Your task to perform on an android device: Open calendar and show me the third week of next month Image 0: 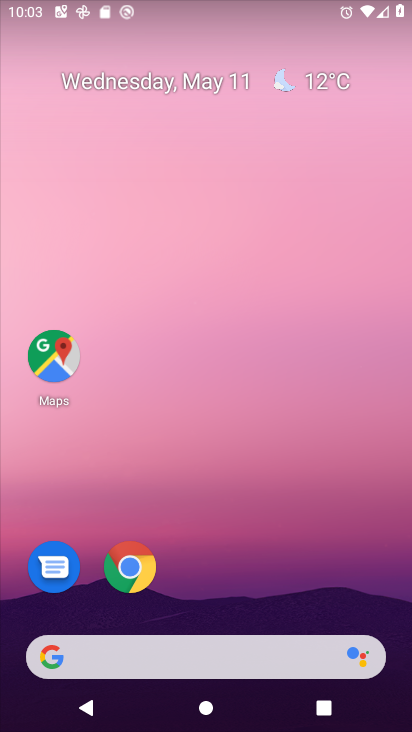
Step 0: drag from (262, 450) to (247, 84)
Your task to perform on an android device: Open calendar and show me the third week of next month Image 1: 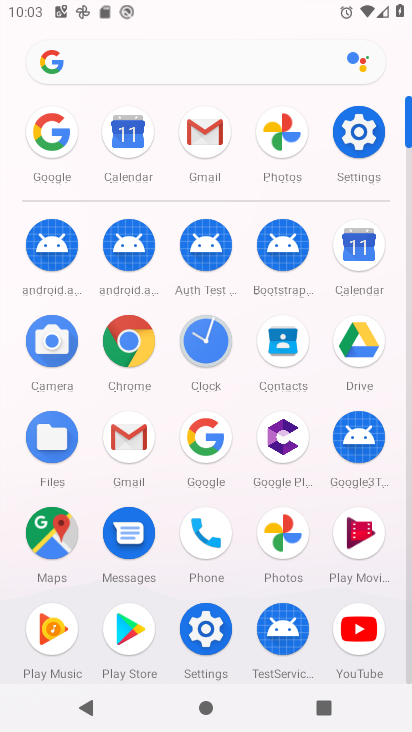
Step 1: click (356, 252)
Your task to perform on an android device: Open calendar and show me the third week of next month Image 2: 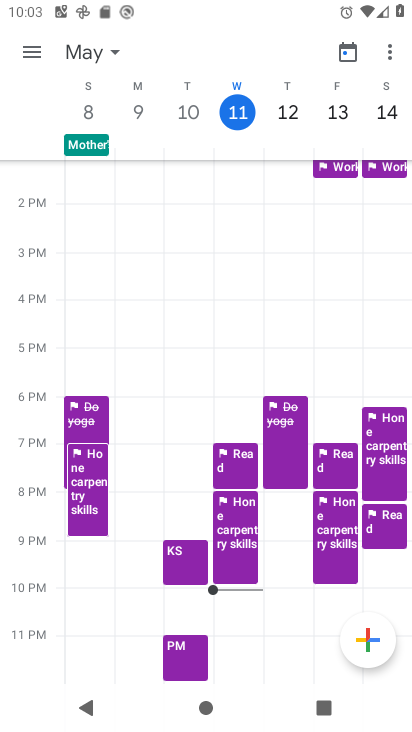
Step 2: click (112, 55)
Your task to perform on an android device: Open calendar and show me the third week of next month Image 3: 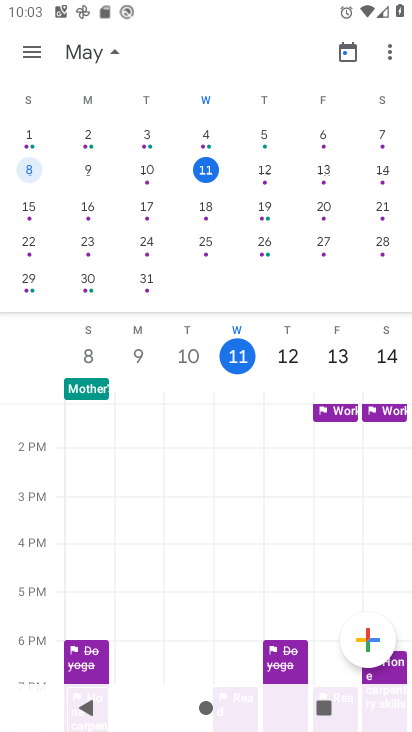
Step 3: drag from (349, 213) to (8, 234)
Your task to perform on an android device: Open calendar and show me the third week of next month Image 4: 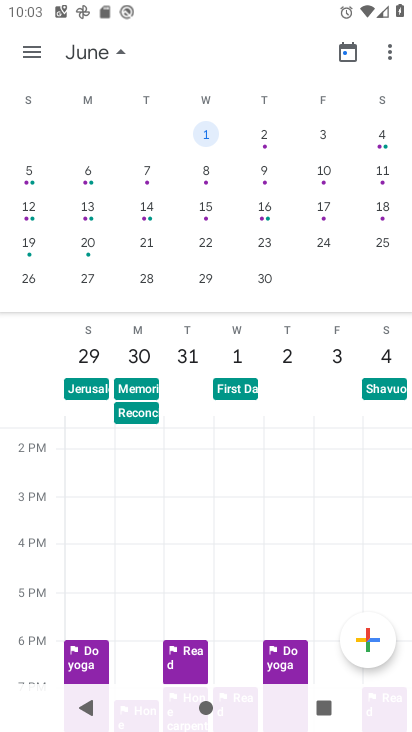
Step 4: click (35, 207)
Your task to perform on an android device: Open calendar and show me the third week of next month Image 5: 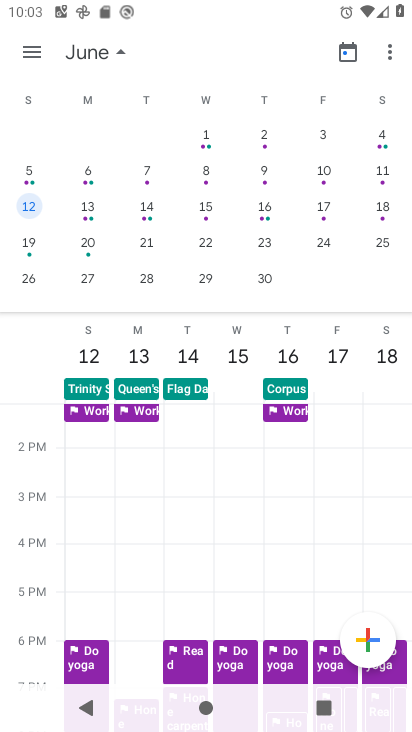
Step 5: task complete